Your task to perform on an android device: turn on the 24-hour format for clock Image 0: 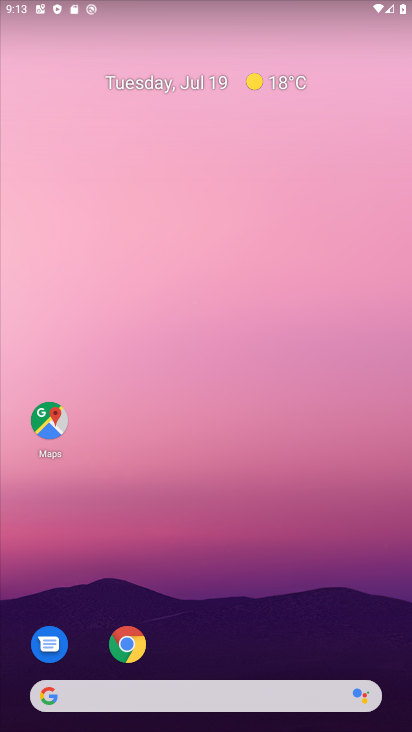
Step 0: drag from (232, 725) to (191, 346)
Your task to perform on an android device: turn on the 24-hour format for clock Image 1: 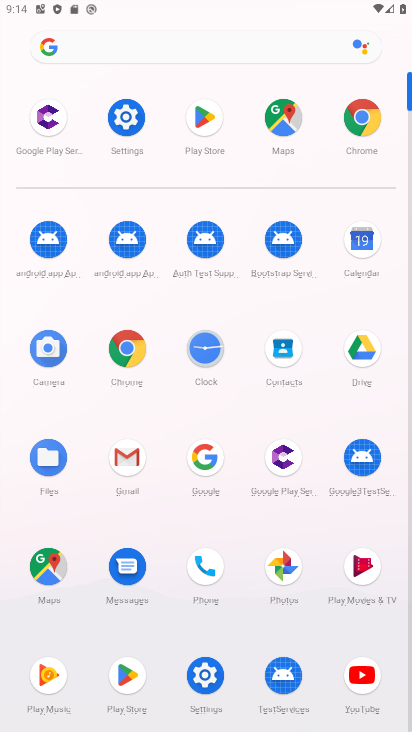
Step 1: click (209, 346)
Your task to perform on an android device: turn on the 24-hour format for clock Image 2: 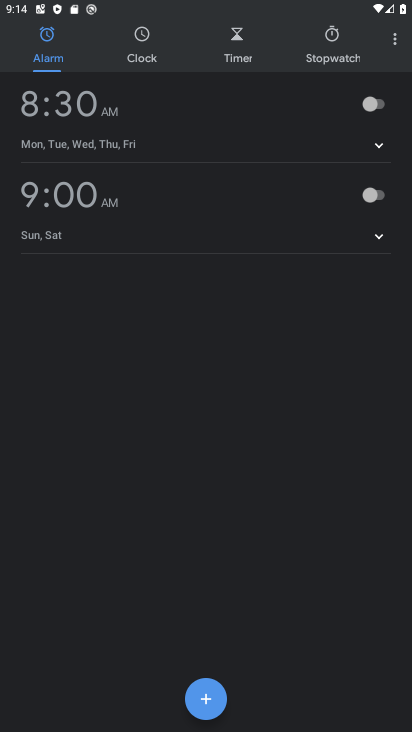
Step 2: click (395, 45)
Your task to perform on an android device: turn on the 24-hour format for clock Image 3: 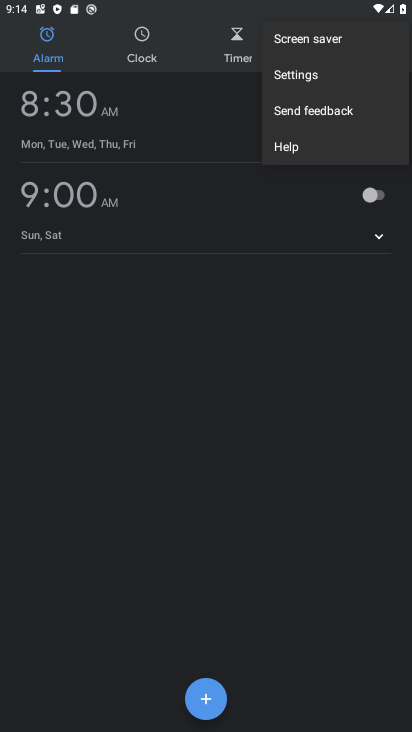
Step 3: click (299, 77)
Your task to perform on an android device: turn on the 24-hour format for clock Image 4: 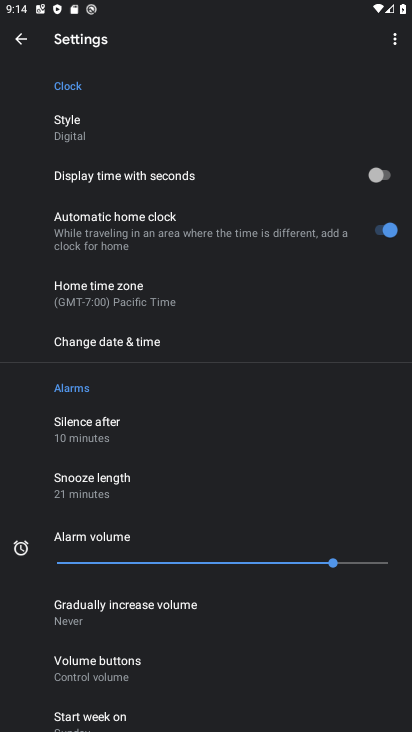
Step 4: click (121, 344)
Your task to perform on an android device: turn on the 24-hour format for clock Image 5: 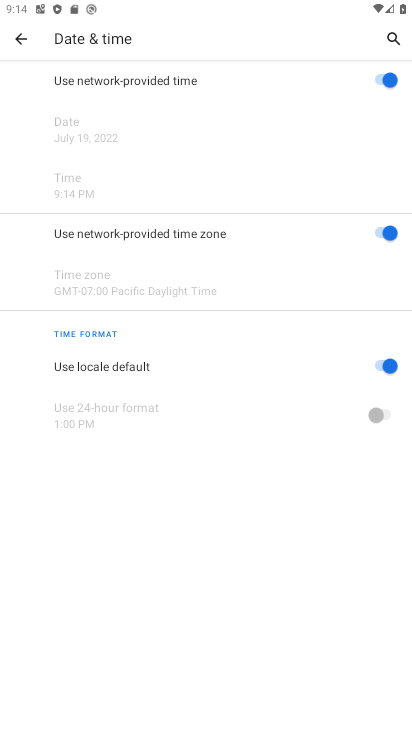
Step 5: click (388, 367)
Your task to perform on an android device: turn on the 24-hour format for clock Image 6: 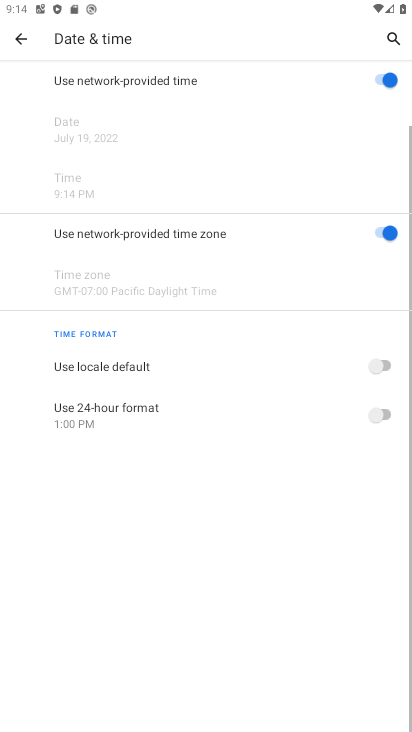
Step 6: click (384, 409)
Your task to perform on an android device: turn on the 24-hour format for clock Image 7: 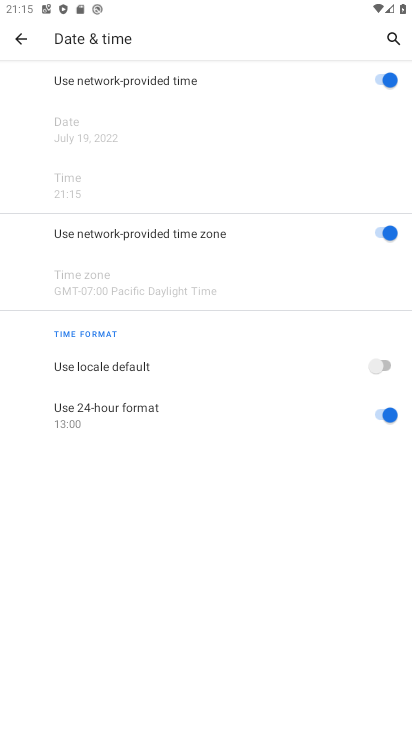
Step 7: task complete